Your task to perform on an android device: set default search engine in the chrome app Image 0: 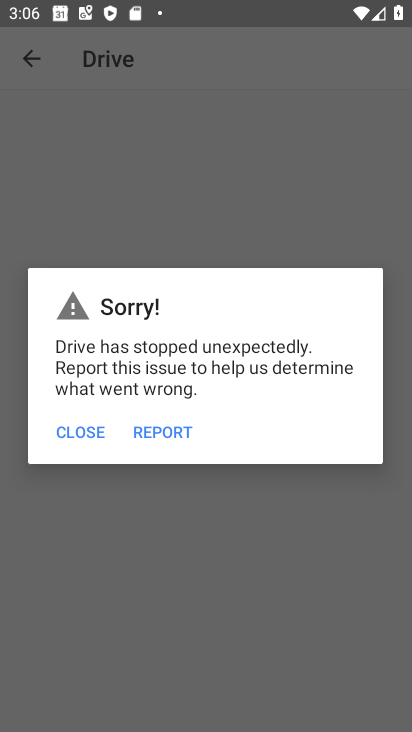
Step 0: press home button
Your task to perform on an android device: set default search engine in the chrome app Image 1: 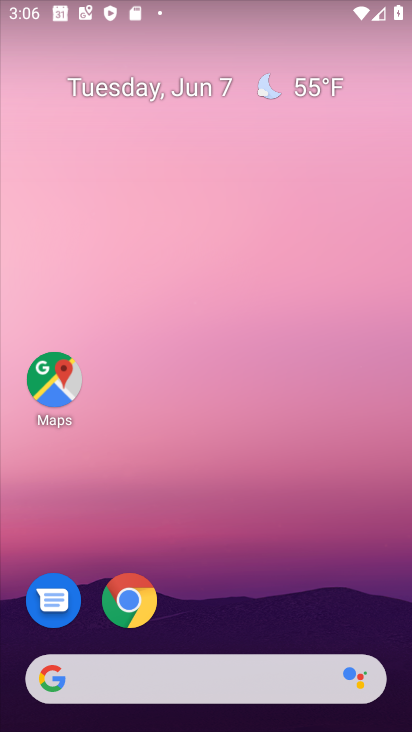
Step 1: click (126, 609)
Your task to perform on an android device: set default search engine in the chrome app Image 2: 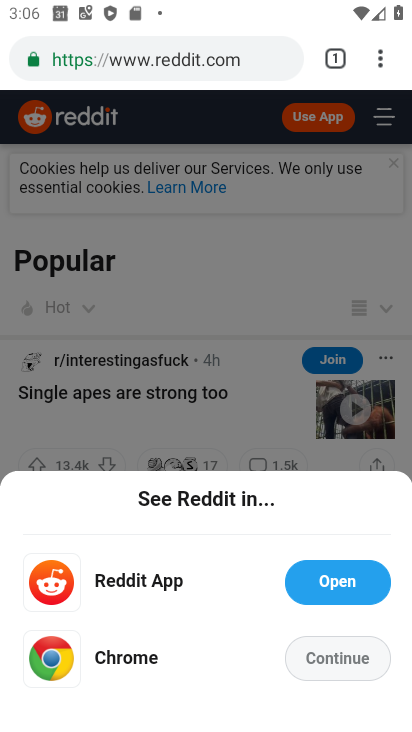
Step 2: click (348, 659)
Your task to perform on an android device: set default search engine in the chrome app Image 3: 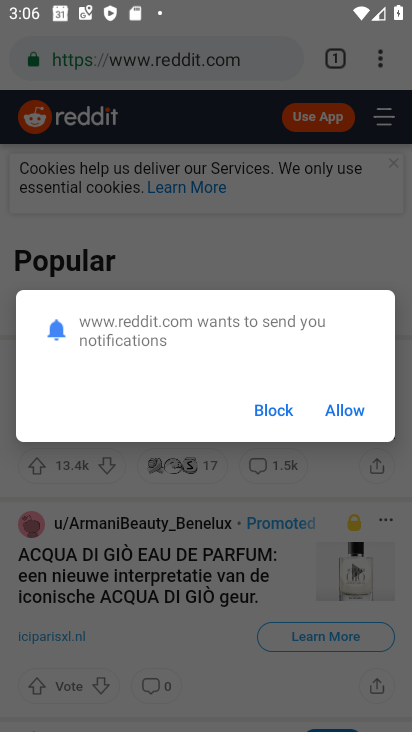
Step 3: click (280, 401)
Your task to perform on an android device: set default search engine in the chrome app Image 4: 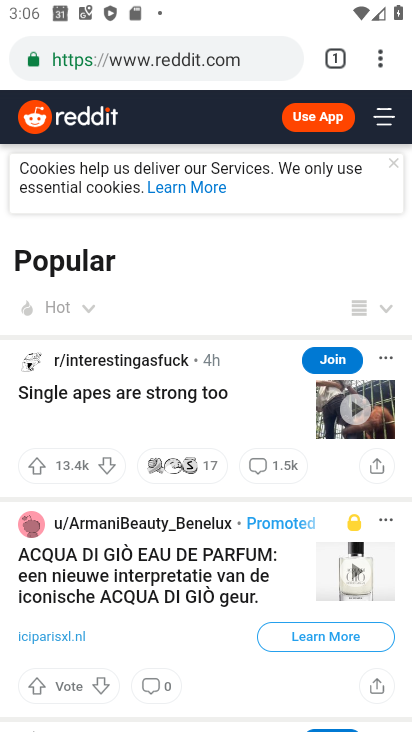
Step 4: click (383, 64)
Your task to perform on an android device: set default search engine in the chrome app Image 5: 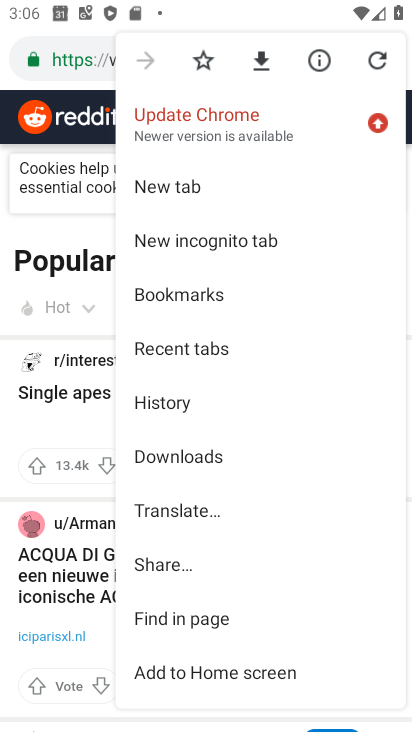
Step 5: drag from (208, 588) to (194, 0)
Your task to perform on an android device: set default search engine in the chrome app Image 6: 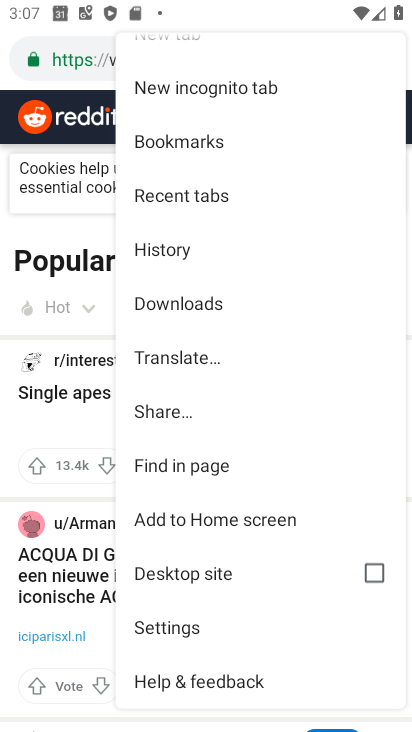
Step 6: click (166, 633)
Your task to perform on an android device: set default search engine in the chrome app Image 7: 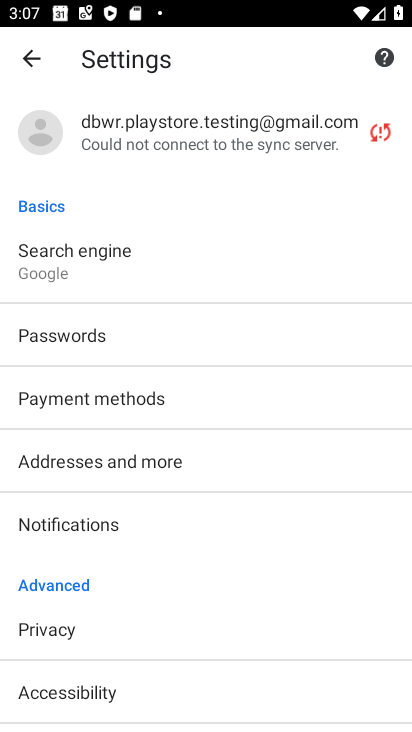
Step 7: click (91, 250)
Your task to perform on an android device: set default search engine in the chrome app Image 8: 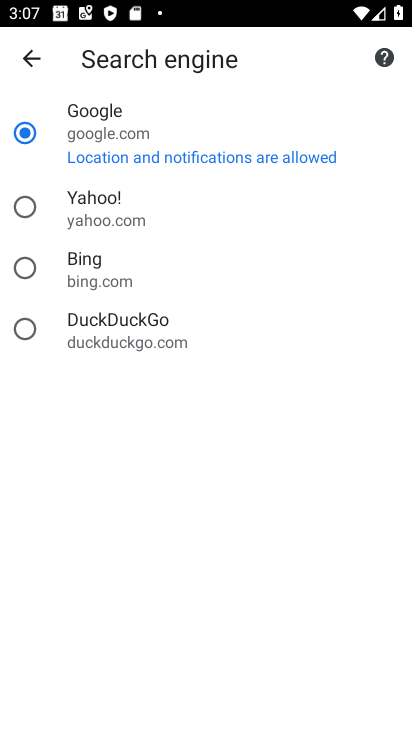
Step 8: click (35, 279)
Your task to perform on an android device: set default search engine in the chrome app Image 9: 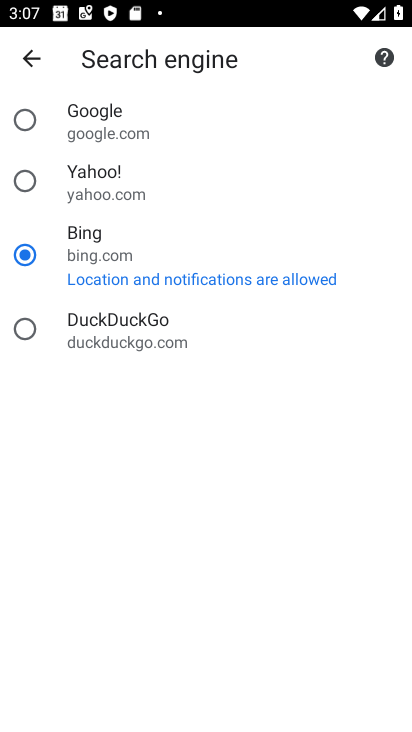
Step 9: task complete